Your task to perform on an android device: check data usage Image 0: 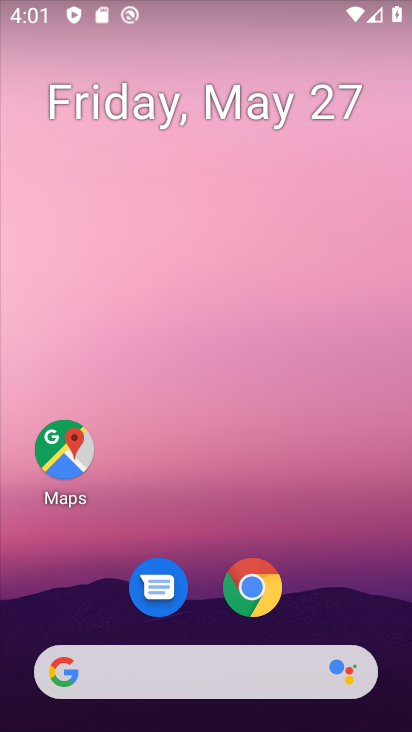
Step 0: drag from (313, 580) to (237, 31)
Your task to perform on an android device: check data usage Image 1: 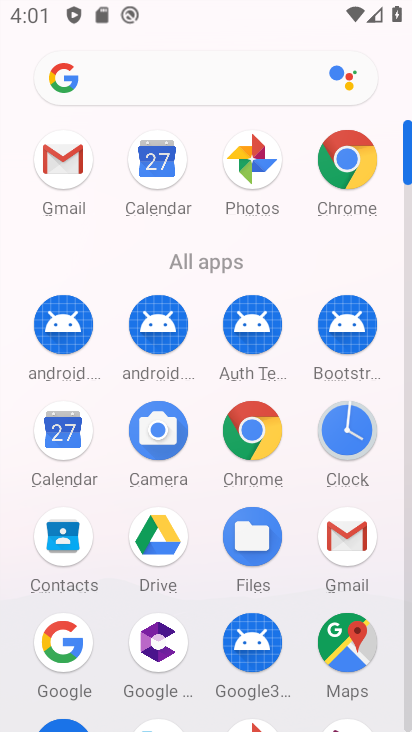
Step 1: drag from (17, 515) to (21, 200)
Your task to perform on an android device: check data usage Image 2: 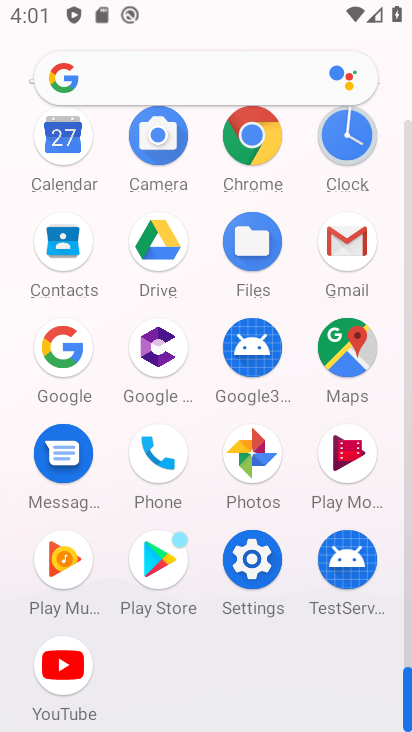
Step 2: click (252, 553)
Your task to perform on an android device: check data usage Image 3: 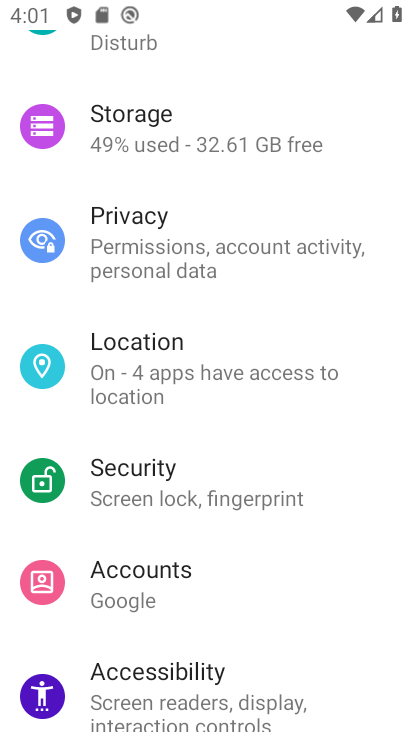
Step 3: drag from (247, 155) to (265, 595)
Your task to perform on an android device: check data usage Image 4: 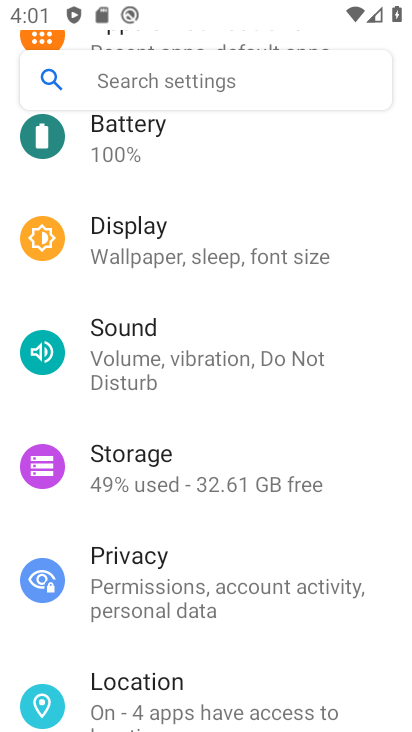
Step 4: drag from (246, 247) to (237, 644)
Your task to perform on an android device: check data usage Image 5: 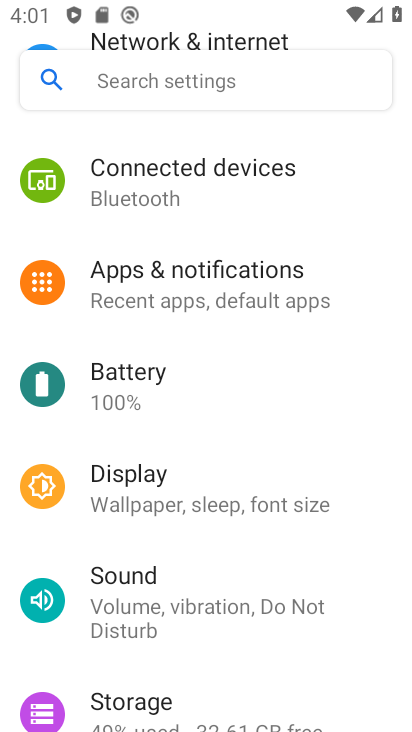
Step 5: drag from (240, 232) to (224, 628)
Your task to perform on an android device: check data usage Image 6: 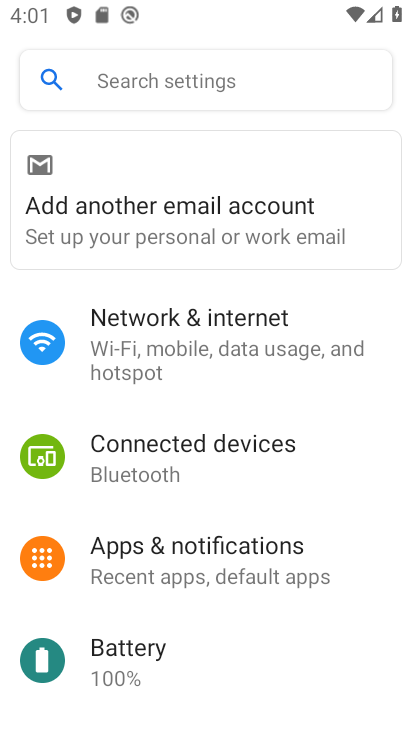
Step 6: click (207, 331)
Your task to perform on an android device: check data usage Image 7: 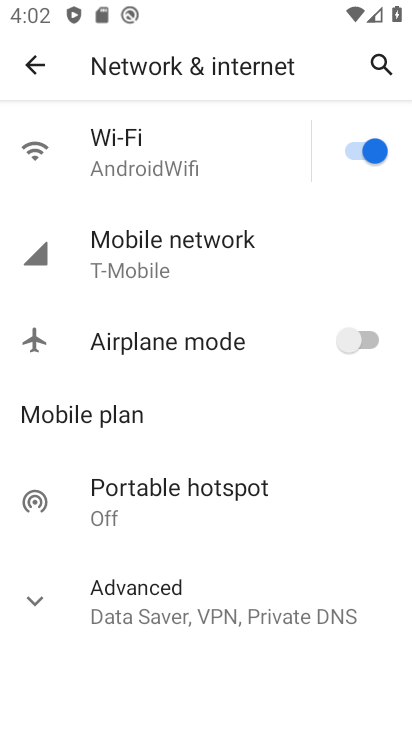
Step 7: click (194, 246)
Your task to perform on an android device: check data usage Image 8: 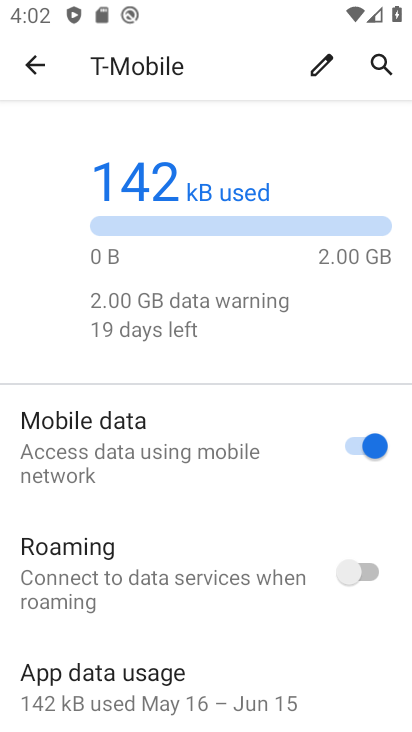
Step 8: task complete